Your task to perform on an android device: open a bookmark in the chrome app Image 0: 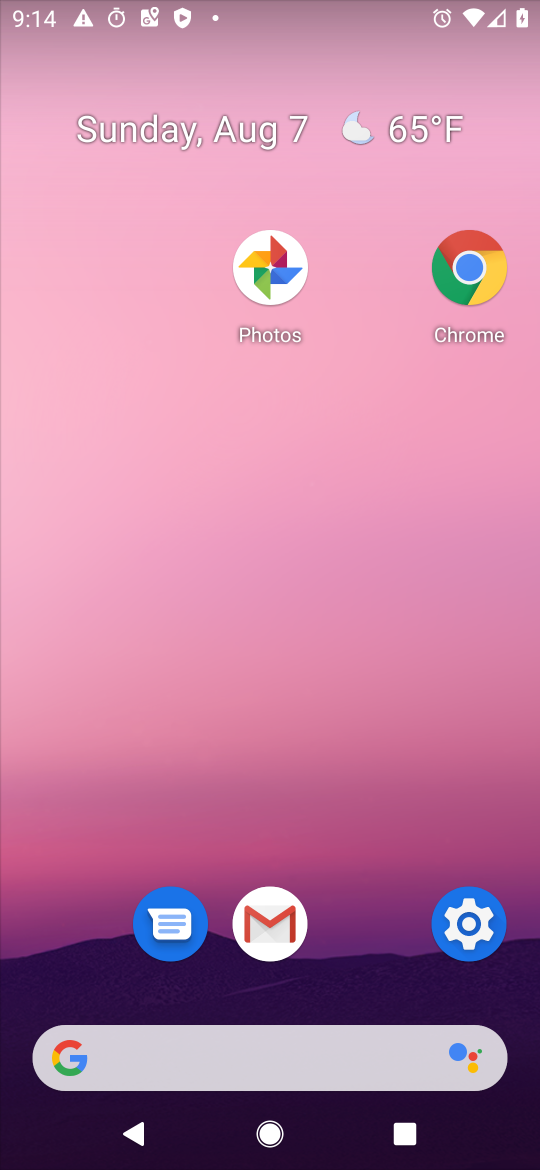
Step 0: drag from (344, 1067) to (337, 227)
Your task to perform on an android device: open a bookmark in the chrome app Image 1: 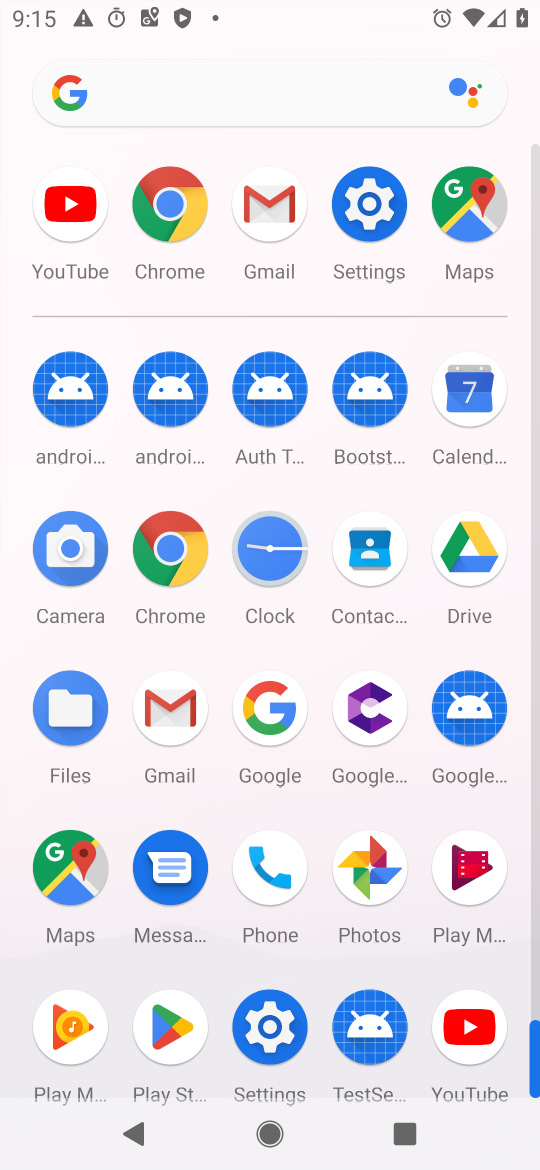
Step 1: click (183, 209)
Your task to perform on an android device: open a bookmark in the chrome app Image 2: 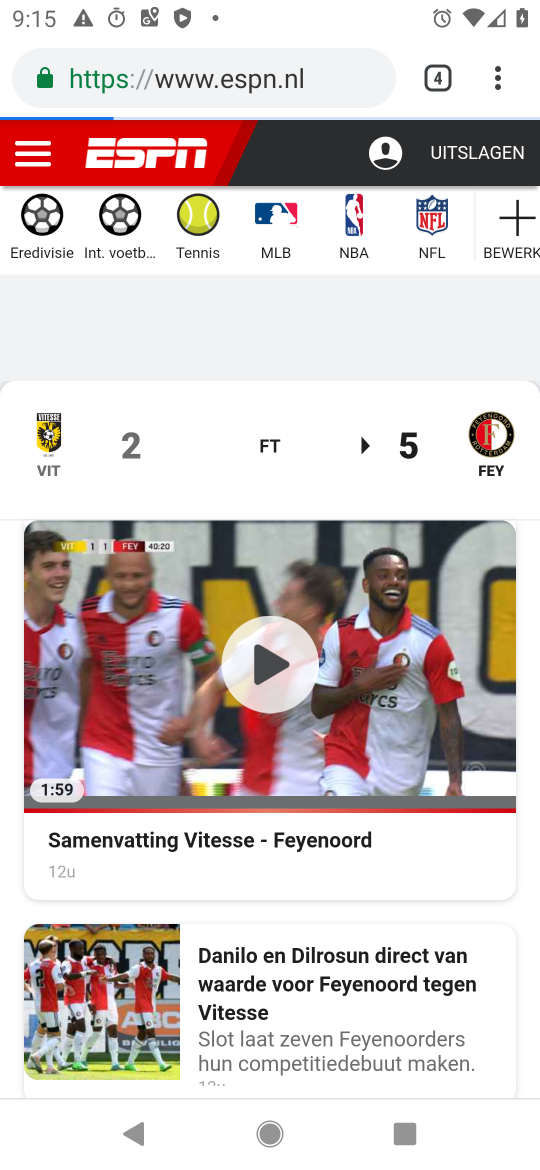
Step 2: click (293, 80)
Your task to perform on an android device: open a bookmark in the chrome app Image 3: 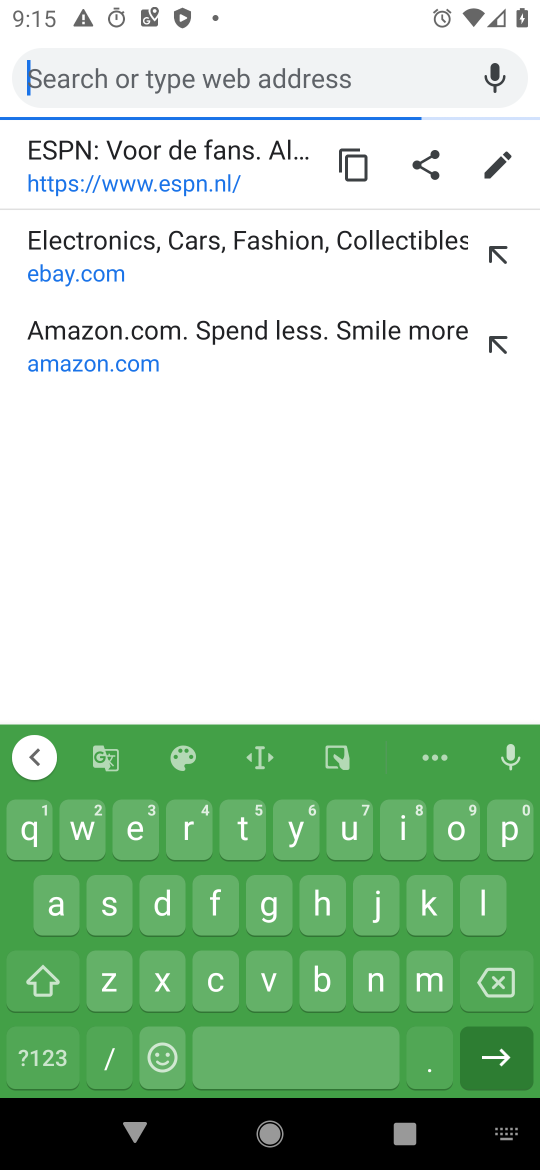
Step 3: press back button
Your task to perform on an android device: open a bookmark in the chrome app Image 4: 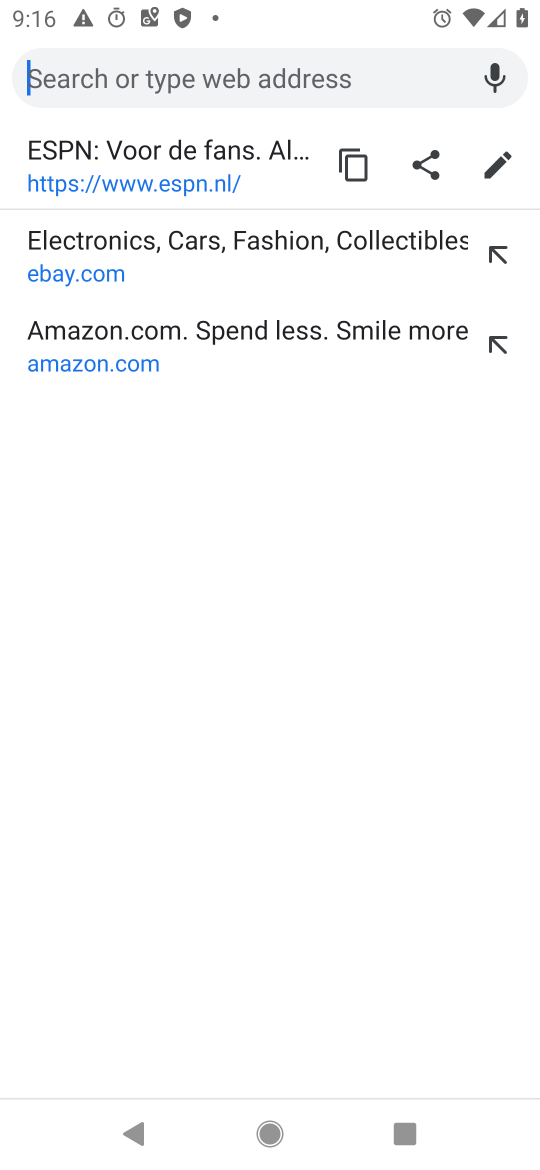
Step 4: press back button
Your task to perform on an android device: open a bookmark in the chrome app Image 5: 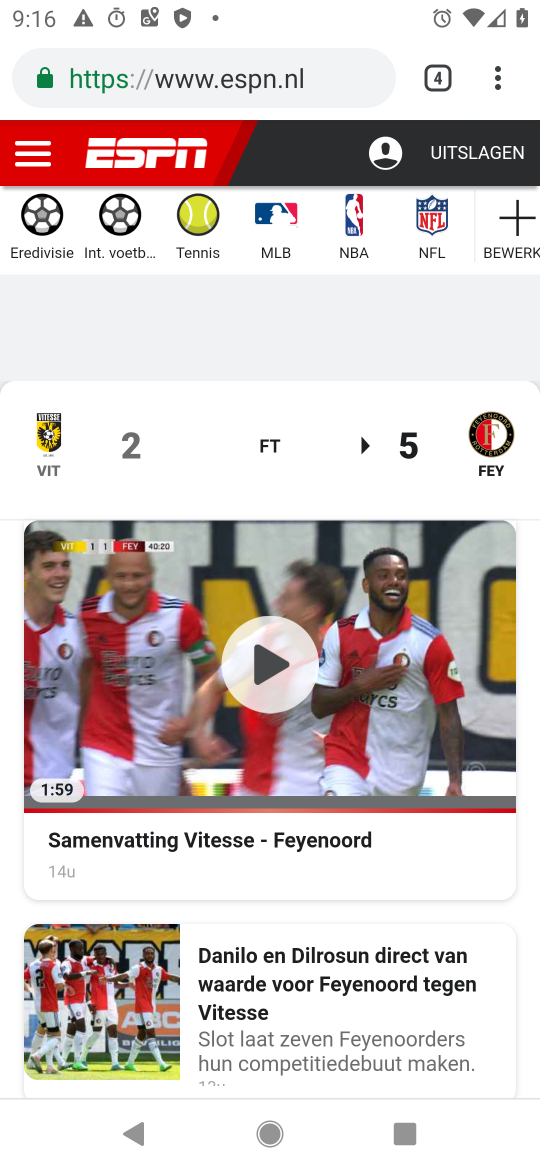
Step 5: click (484, 78)
Your task to perform on an android device: open a bookmark in the chrome app Image 6: 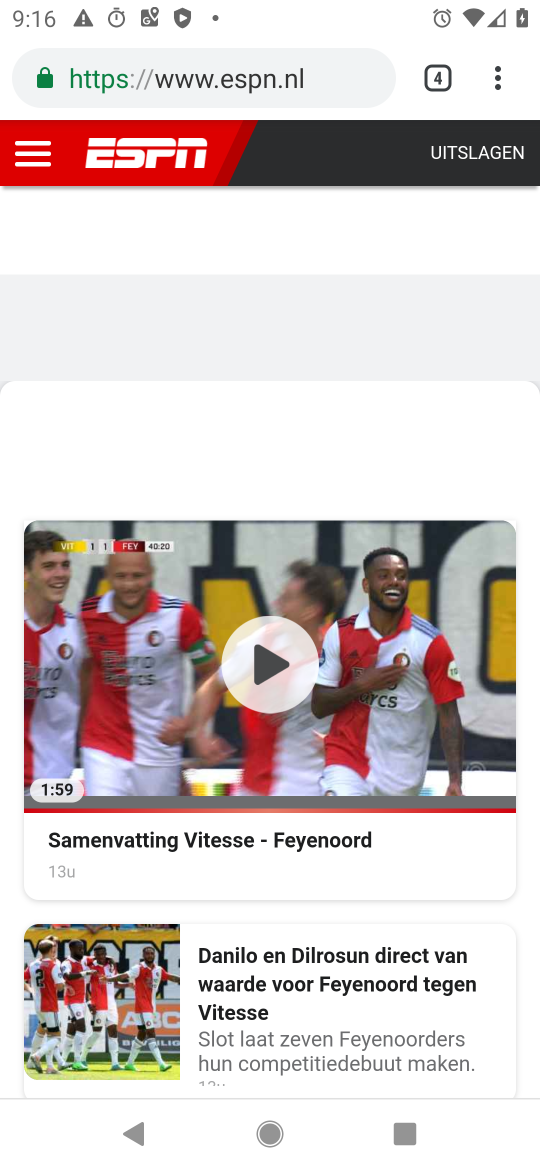
Step 6: click (496, 65)
Your task to perform on an android device: open a bookmark in the chrome app Image 7: 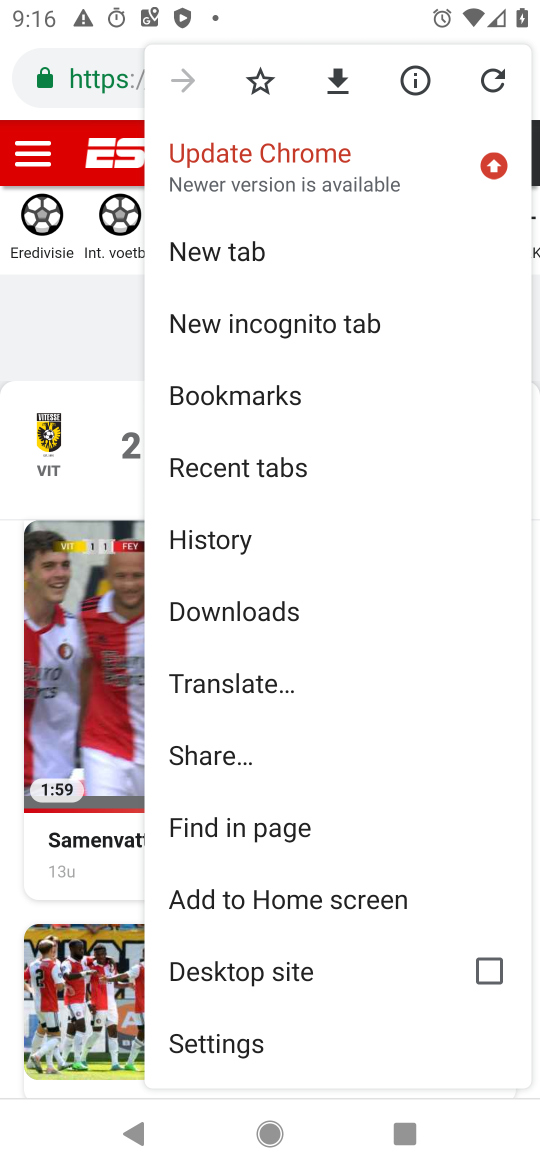
Step 7: click (241, 389)
Your task to perform on an android device: open a bookmark in the chrome app Image 8: 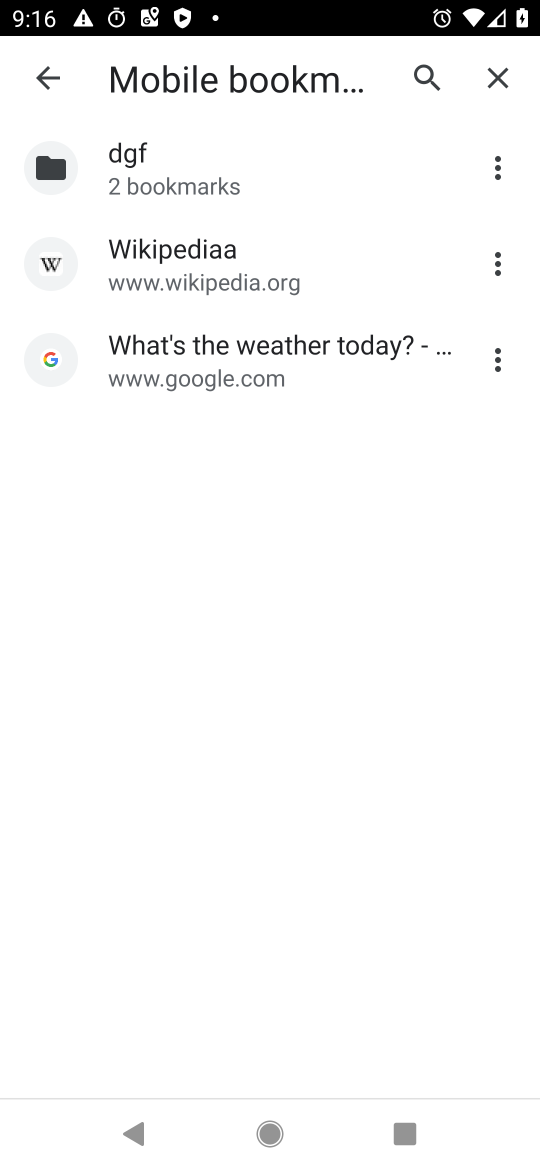
Step 8: task complete